Your task to perform on an android device: Empty the shopping cart on newegg.com. Add bose quietcomfort 35 to the cart on newegg.com Image 0: 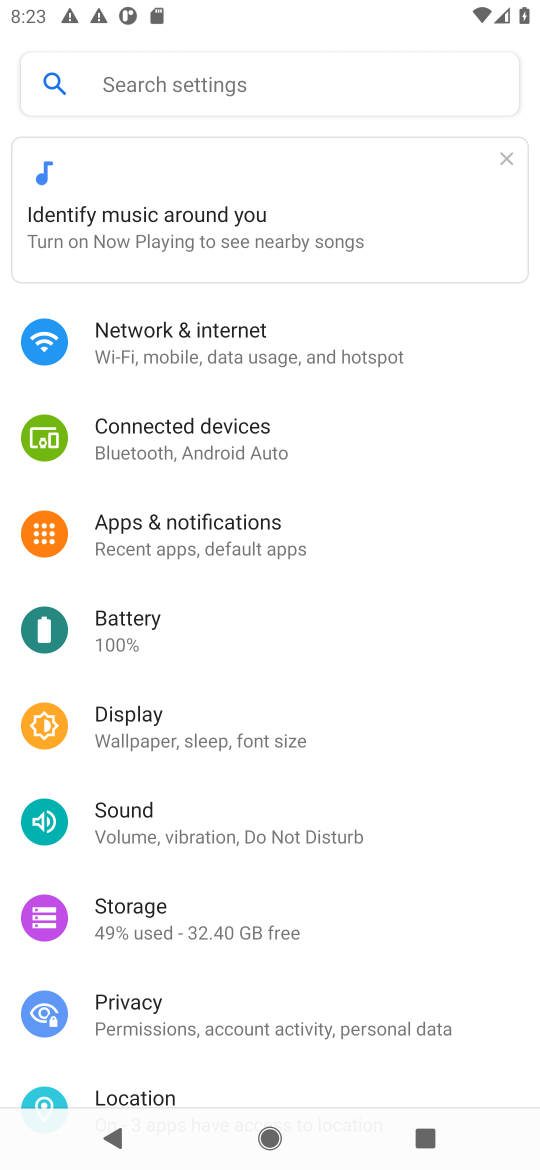
Step 0: press home button
Your task to perform on an android device: Empty the shopping cart on newegg.com. Add bose quietcomfort 35 to the cart on newegg.com Image 1: 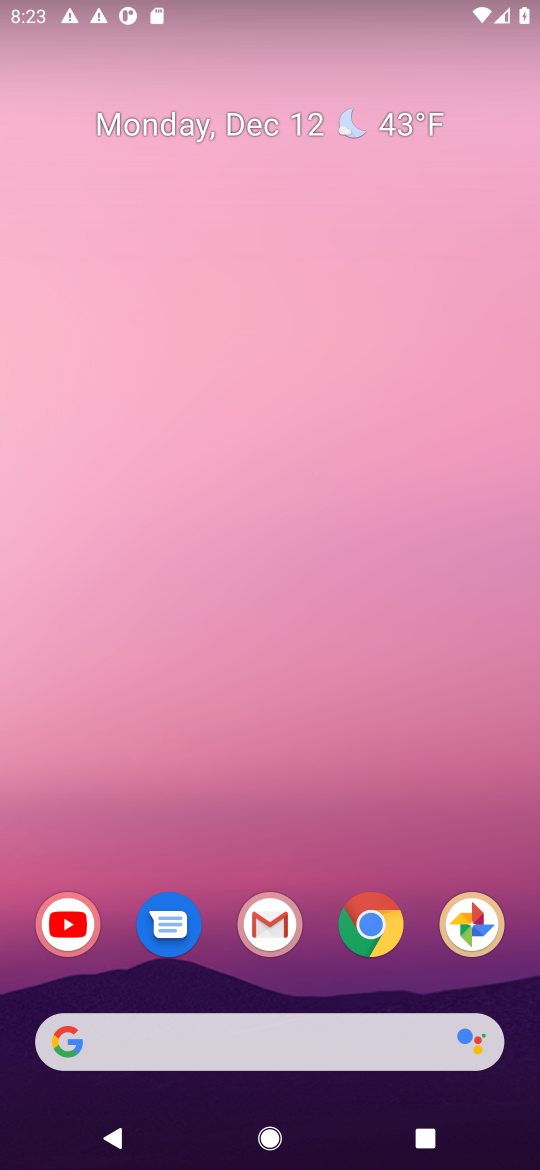
Step 1: click (259, 1049)
Your task to perform on an android device: Empty the shopping cart on newegg.com. Add bose quietcomfort 35 to the cart on newegg.com Image 2: 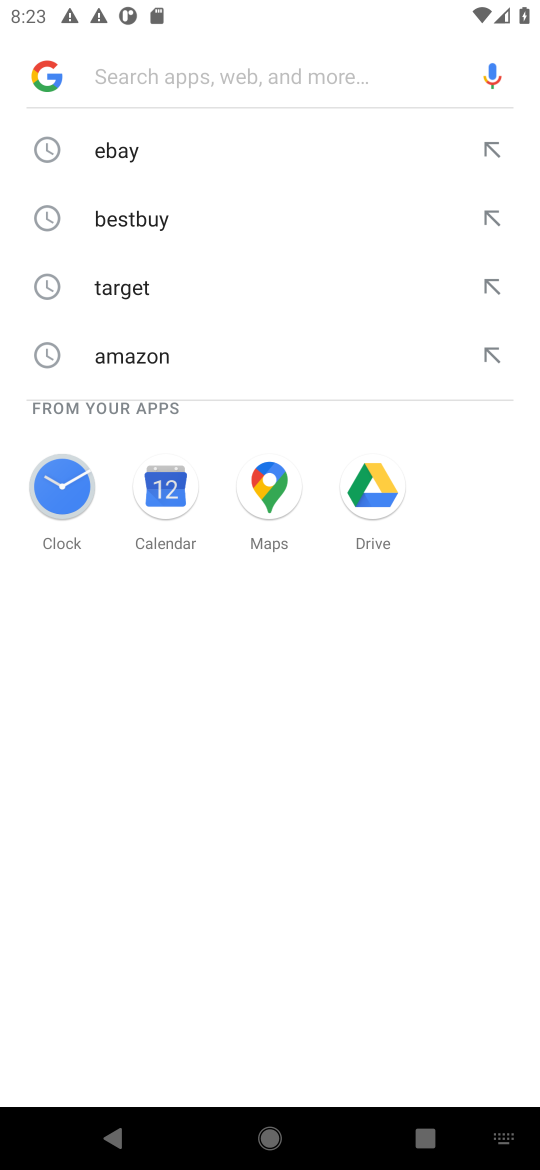
Step 2: type "newegg.com"
Your task to perform on an android device: Empty the shopping cart on newegg.com. Add bose quietcomfort 35 to the cart on newegg.com Image 3: 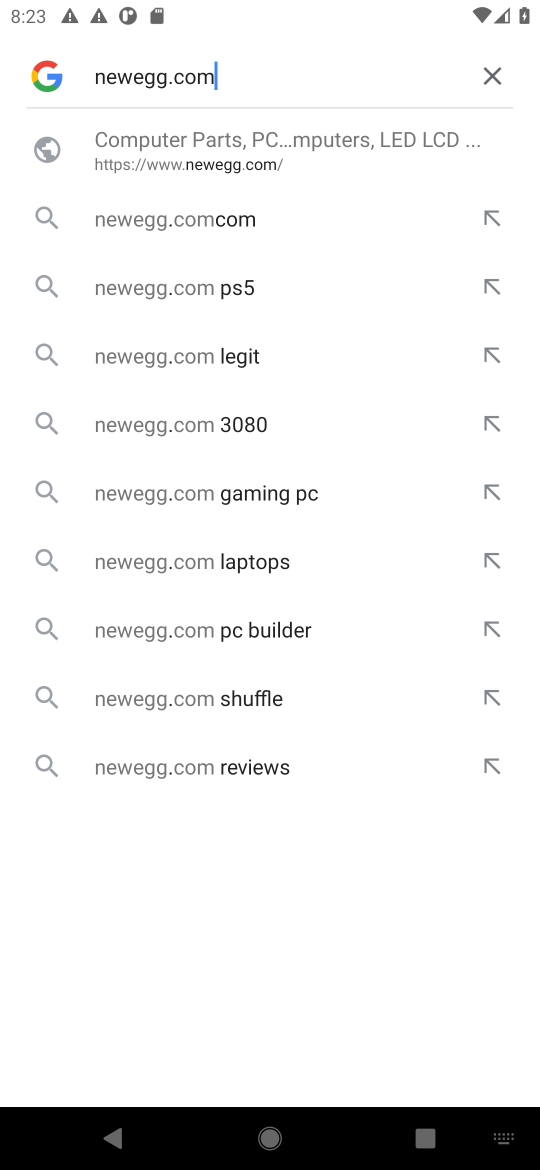
Step 3: click (176, 153)
Your task to perform on an android device: Empty the shopping cart on newegg.com. Add bose quietcomfort 35 to the cart on newegg.com Image 4: 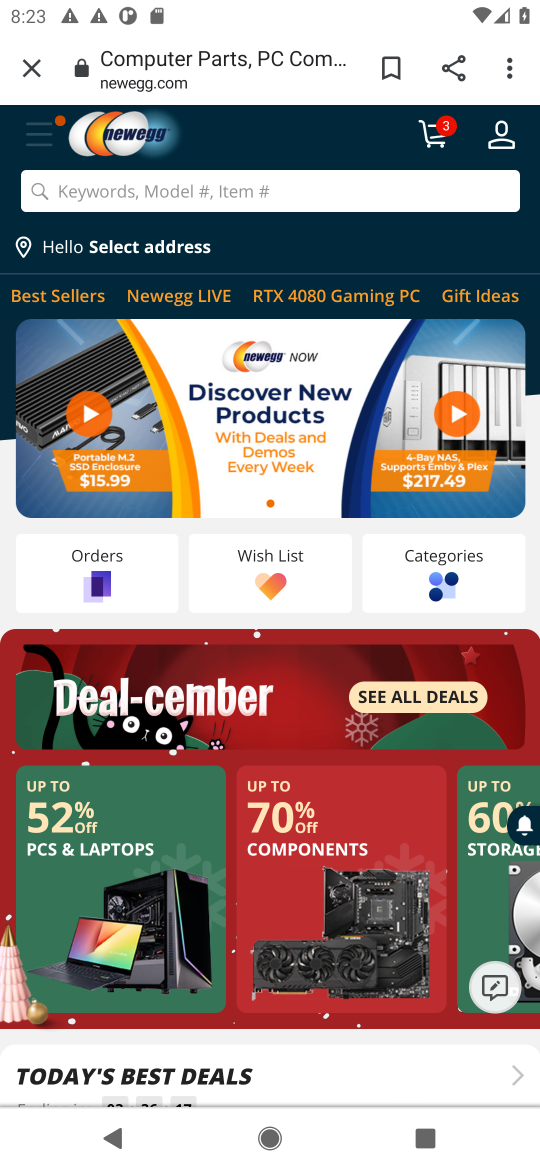
Step 4: click (432, 134)
Your task to perform on an android device: Empty the shopping cart on newegg.com. Add bose quietcomfort 35 to the cart on newegg.com Image 5: 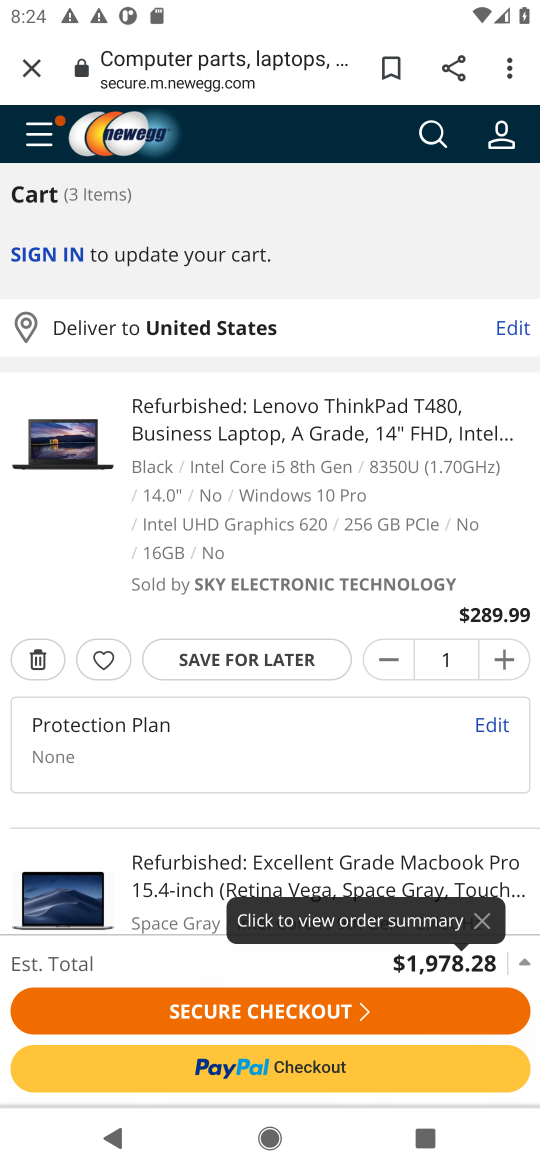
Step 5: click (35, 656)
Your task to perform on an android device: Empty the shopping cart on newegg.com. Add bose quietcomfort 35 to the cart on newegg.com Image 6: 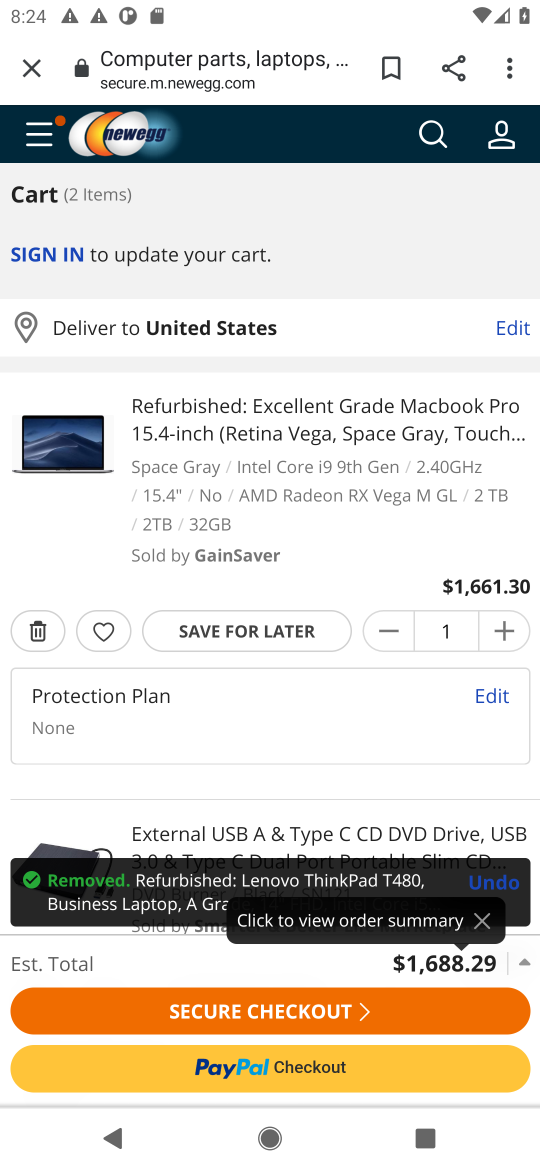
Step 6: click (35, 631)
Your task to perform on an android device: Empty the shopping cart on newegg.com. Add bose quietcomfort 35 to the cart on newegg.com Image 7: 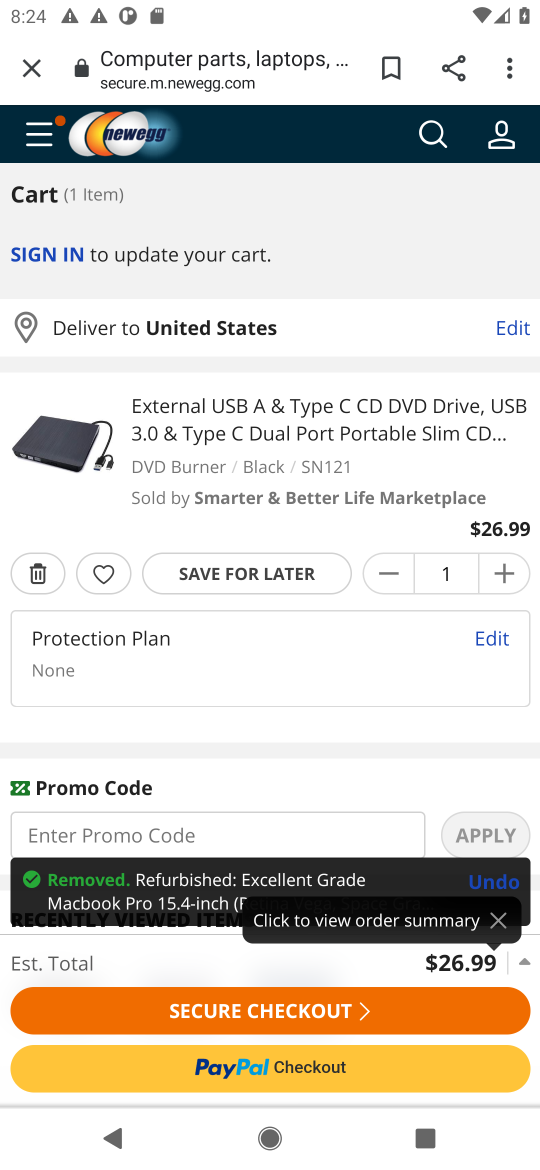
Step 7: click (35, 572)
Your task to perform on an android device: Empty the shopping cart on newegg.com. Add bose quietcomfort 35 to the cart on newegg.com Image 8: 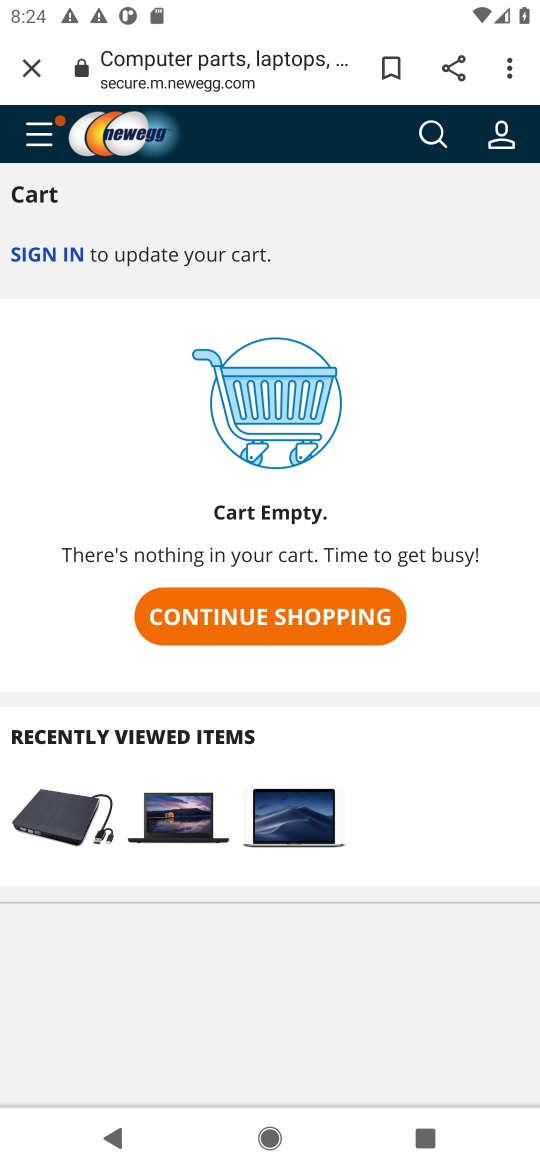
Step 8: click (430, 126)
Your task to perform on an android device: Empty the shopping cart on newegg.com. Add bose quietcomfort 35 to the cart on newegg.com Image 9: 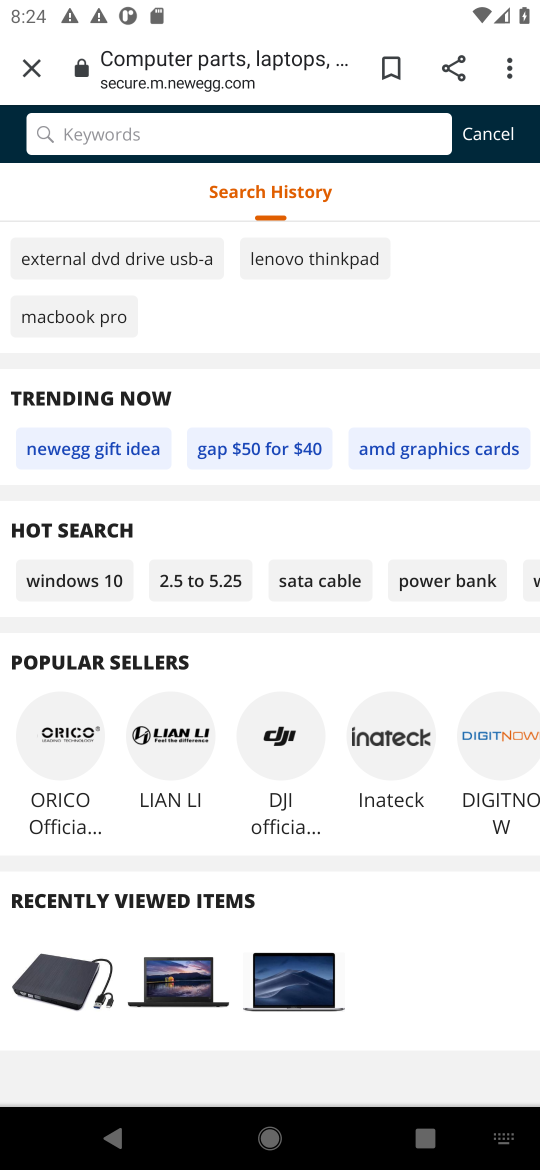
Step 9: click (244, 138)
Your task to perform on an android device: Empty the shopping cart on newegg.com. Add bose quietcomfort 35 to the cart on newegg.com Image 10: 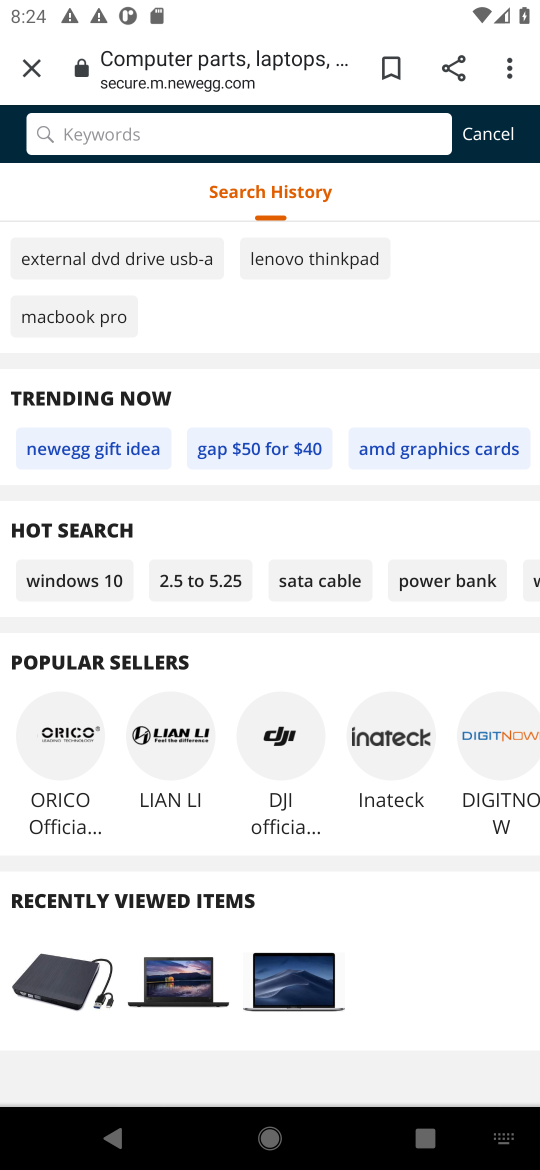
Step 10: type "bose quietcomfort 35 "
Your task to perform on an android device: Empty the shopping cart on newegg.com. Add bose quietcomfort 35 to the cart on newegg.com Image 11: 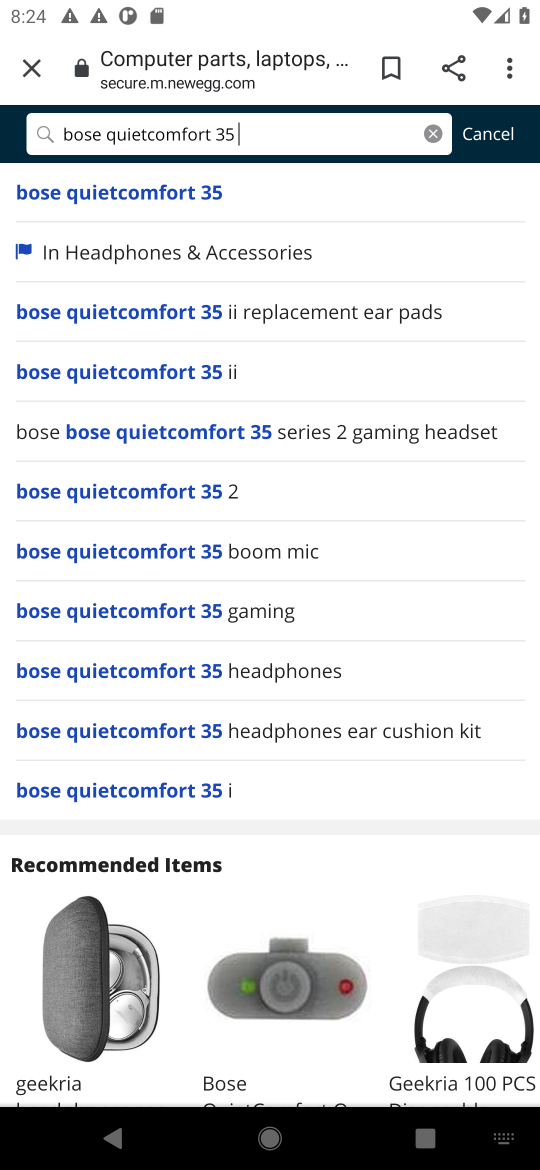
Step 11: click (138, 187)
Your task to perform on an android device: Empty the shopping cart on newegg.com. Add bose quietcomfort 35 to the cart on newegg.com Image 12: 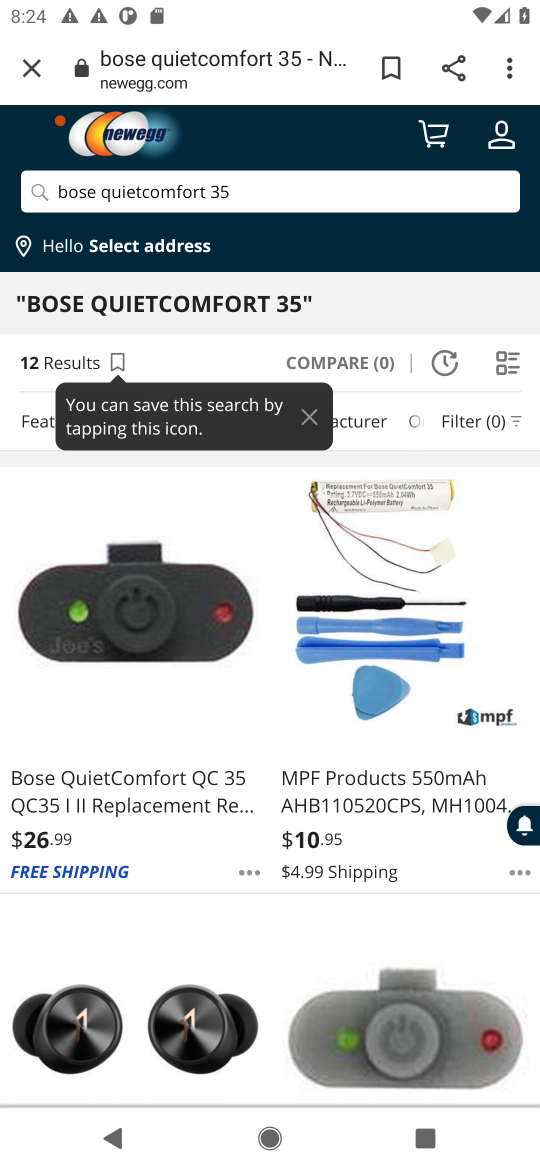
Step 12: click (121, 660)
Your task to perform on an android device: Empty the shopping cart on newegg.com. Add bose quietcomfort 35 to the cart on newegg.com Image 13: 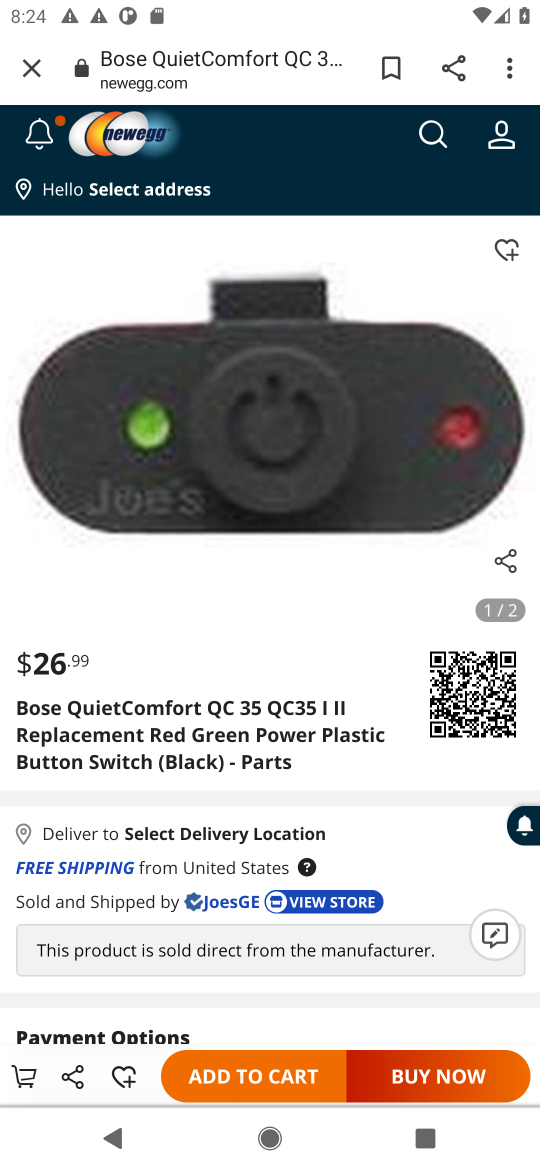
Step 13: click (203, 1055)
Your task to perform on an android device: Empty the shopping cart on newegg.com. Add bose quietcomfort 35 to the cart on newegg.com Image 14: 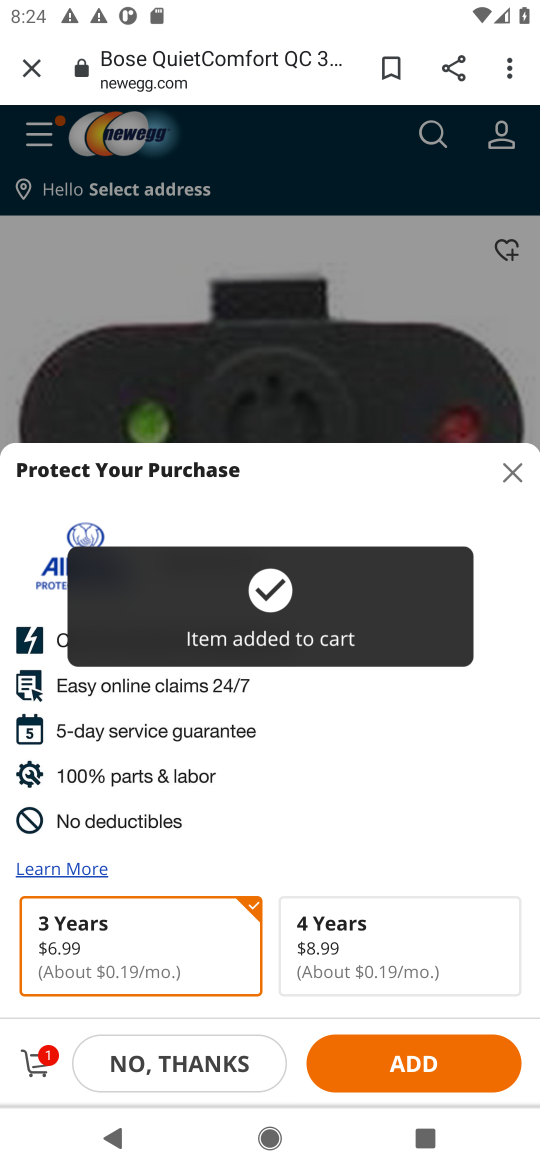
Step 14: drag from (203, 1055) to (468, 781)
Your task to perform on an android device: Empty the shopping cart on newegg.com. Add bose quietcomfort 35 to the cart on newegg.com Image 15: 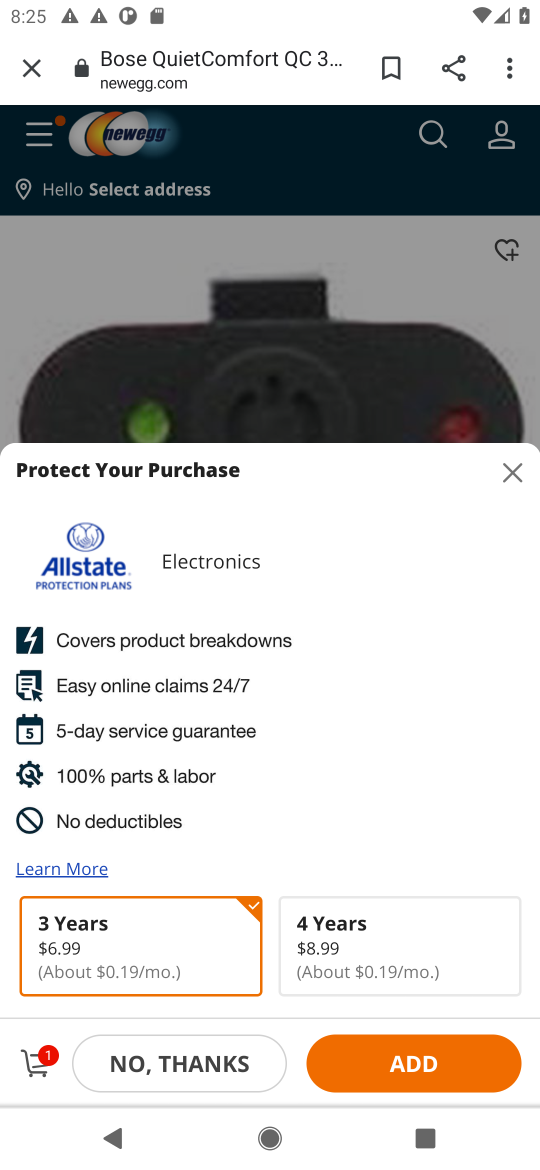
Step 15: click (146, 1069)
Your task to perform on an android device: Empty the shopping cart on newegg.com. Add bose quietcomfort 35 to the cart on newegg.com Image 16: 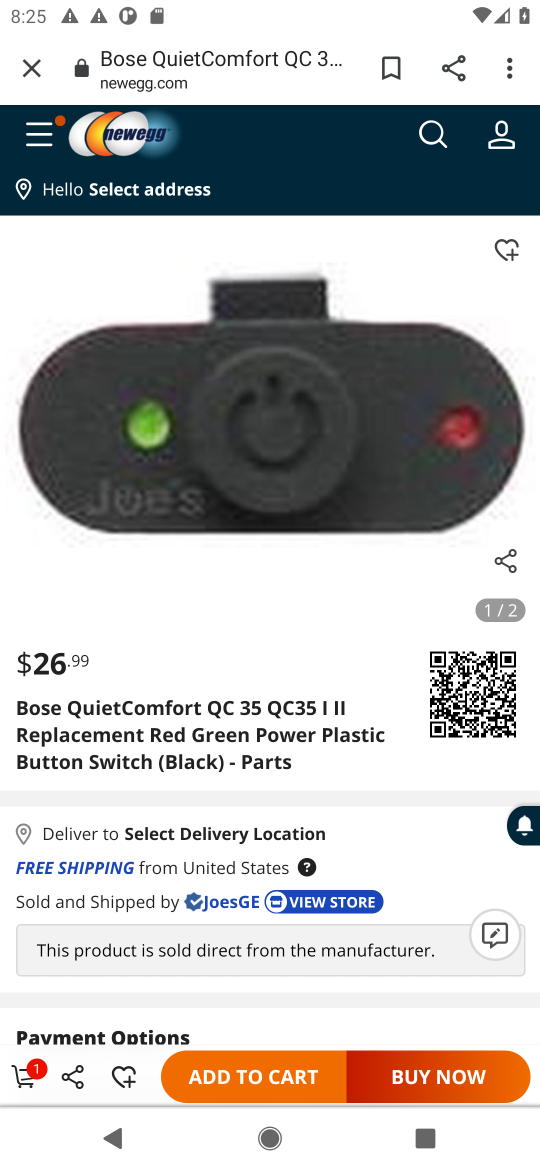
Step 16: task complete